Your task to perform on an android device: Open sound settings Image 0: 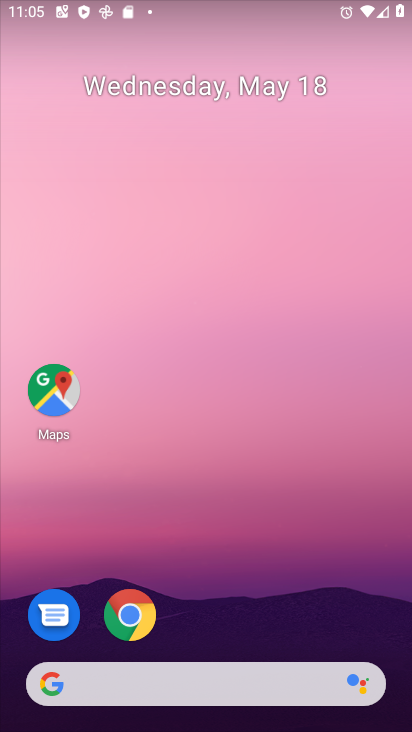
Step 0: drag from (181, 648) to (167, 197)
Your task to perform on an android device: Open sound settings Image 1: 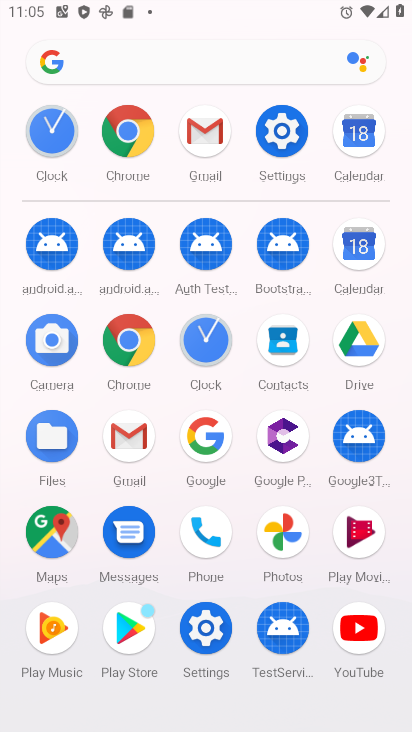
Step 1: click (284, 130)
Your task to perform on an android device: Open sound settings Image 2: 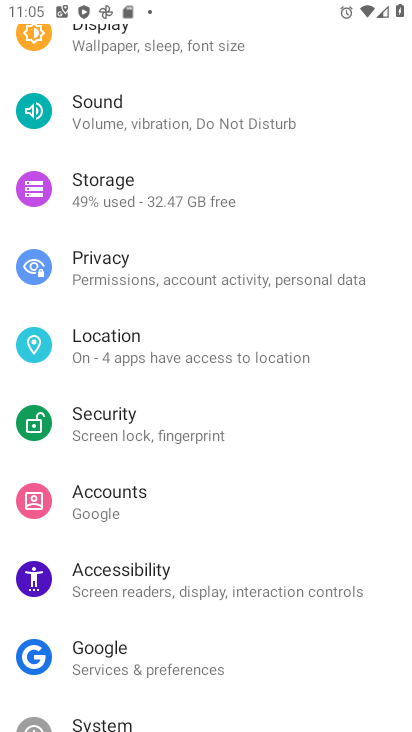
Step 2: click (163, 117)
Your task to perform on an android device: Open sound settings Image 3: 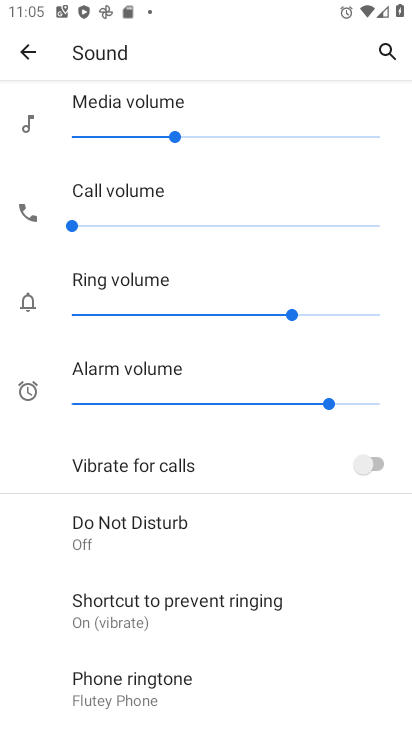
Step 3: task complete